Your task to perform on an android device: manage bookmarks in the chrome app Image 0: 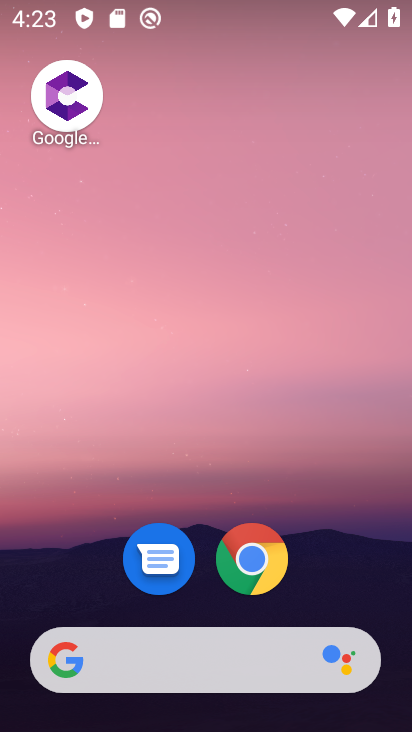
Step 0: drag from (377, 596) to (255, 58)
Your task to perform on an android device: manage bookmarks in the chrome app Image 1: 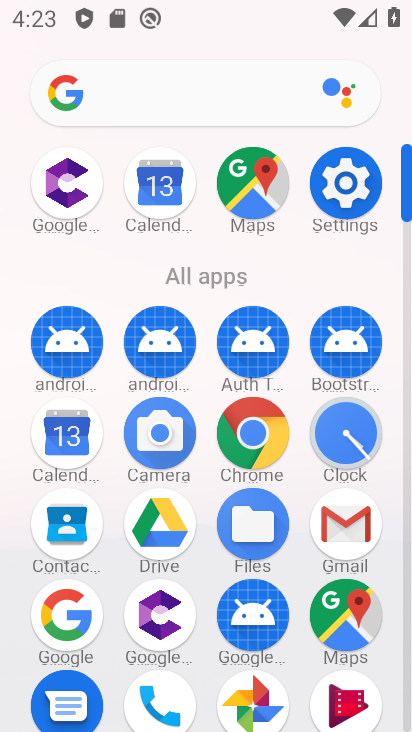
Step 1: click (261, 455)
Your task to perform on an android device: manage bookmarks in the chrome app Image 2: 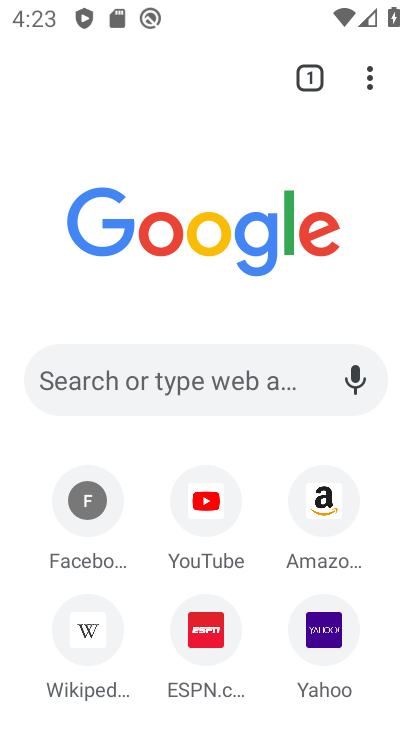
Step 2: click (365, 91)
Your task to perform on an android device: manage bookmarks in the chrome app Image 3: 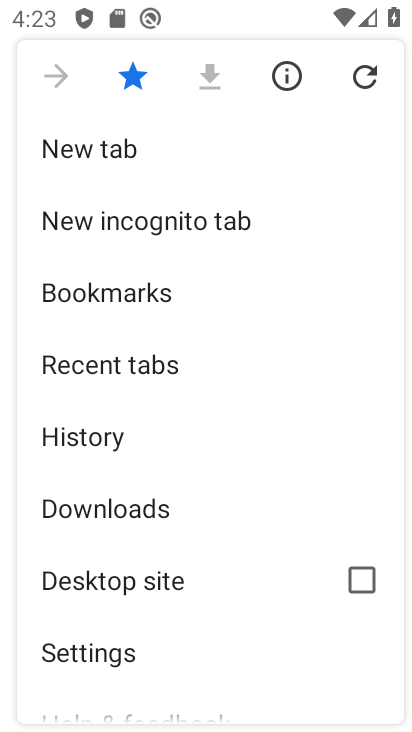
Step 3: click (188, 280)
Your task to perform on an android device: manage bookmarks in the chrome app Image 4: 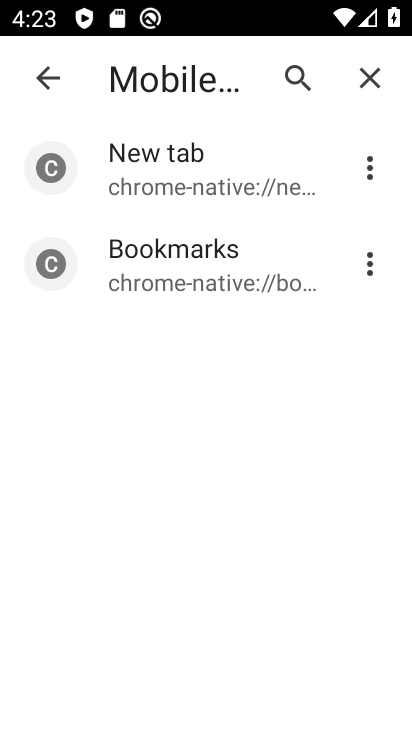
Step 4: click (211, 268)
Your task to perform on an android device: manage bookmarks in the chrome app Image 5: 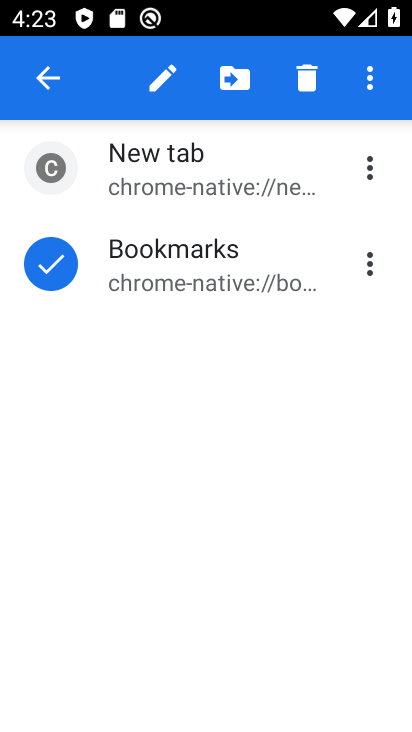
Step 5: click (222, 71)
Your task to perform on an android device: manage bookmarks in the chrome app Image 6: 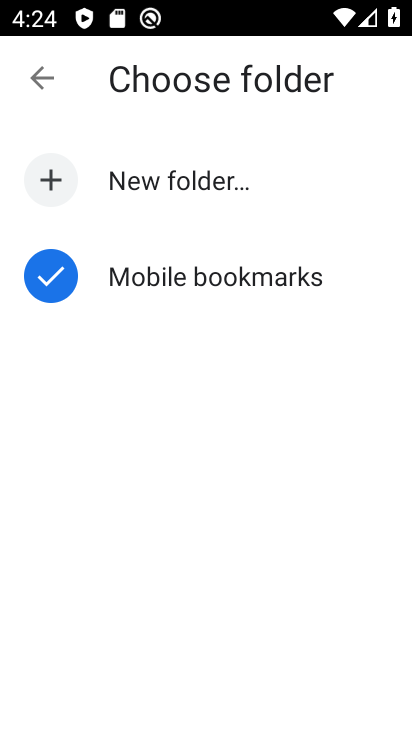
Step 6: click (198, 192)
Your task to perform on an android device: manage bookmarks in the chrome app Image 7: 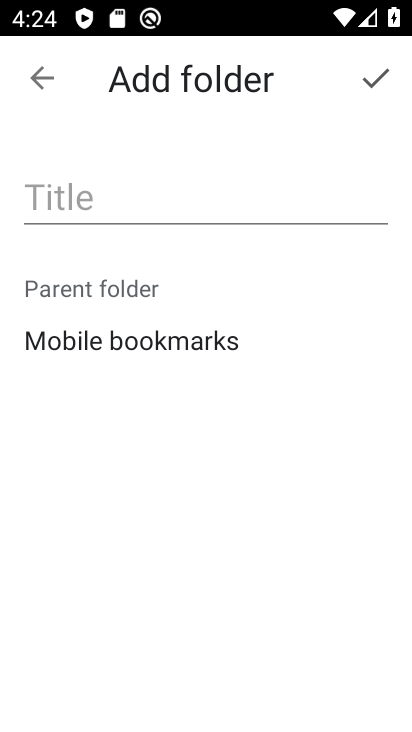
Step 7: click (238, 175)
Your task to perform on an android device: manage bookmarks in the chrome app Image 8: 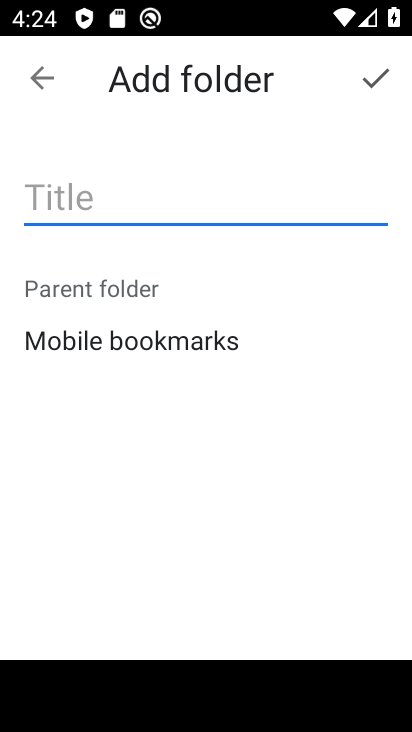
Step 8: type "bkjbkj"
Your task to perform on an android device: manage bookmarks in the chrome app Image 9: 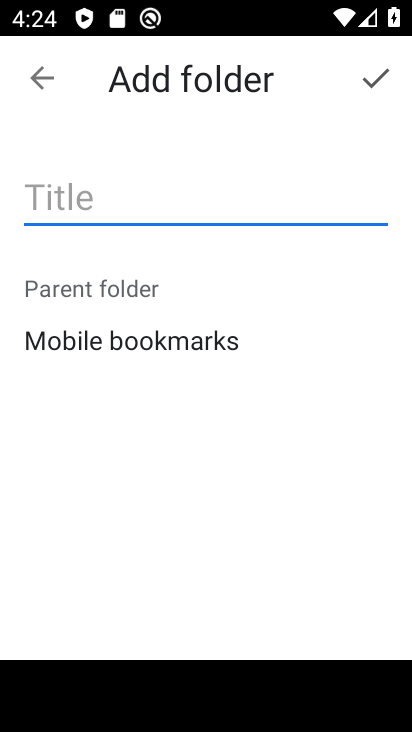
Step 9: click (361, 88)
Your task to perform on an android device: manage bookmarks in the chrome app Image 10: 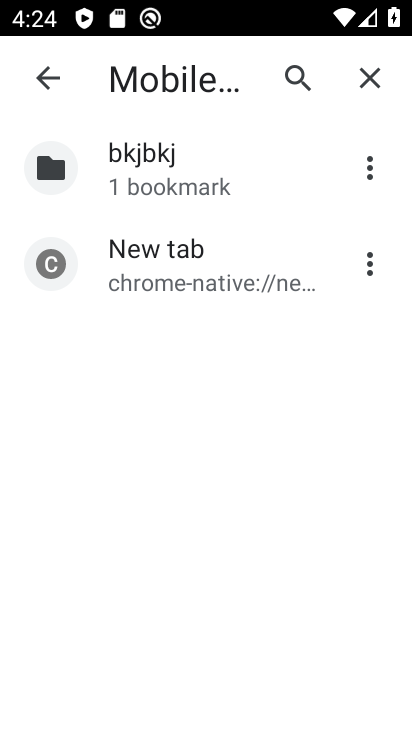
Step 10: task complete